Your task to perform on an android device: open app "Gboard" Image 0: 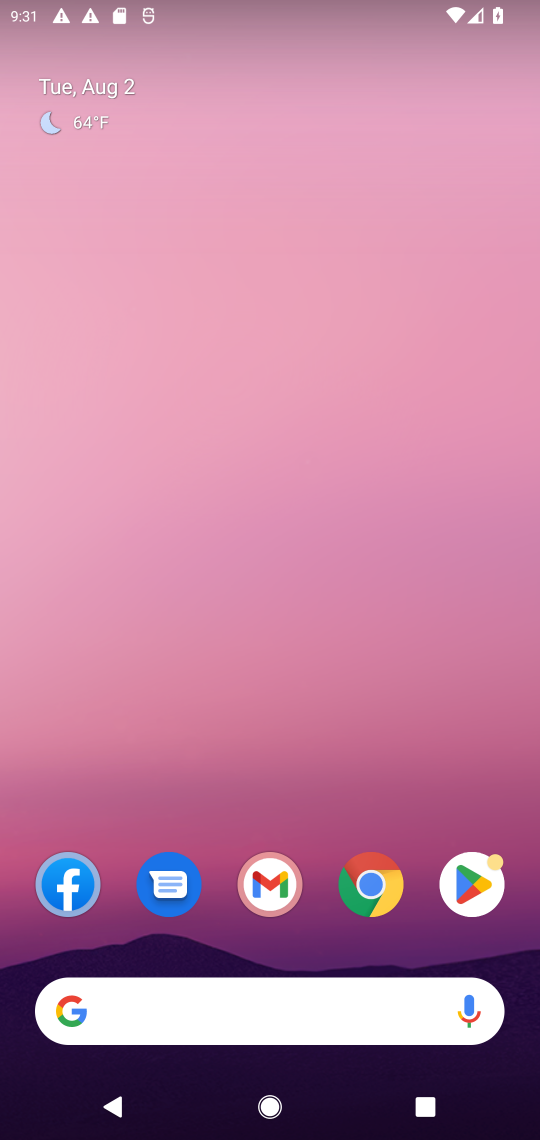
Step 0: click (487, 891)
Your task to perform on an android device: open app "Gboard" Image 1: 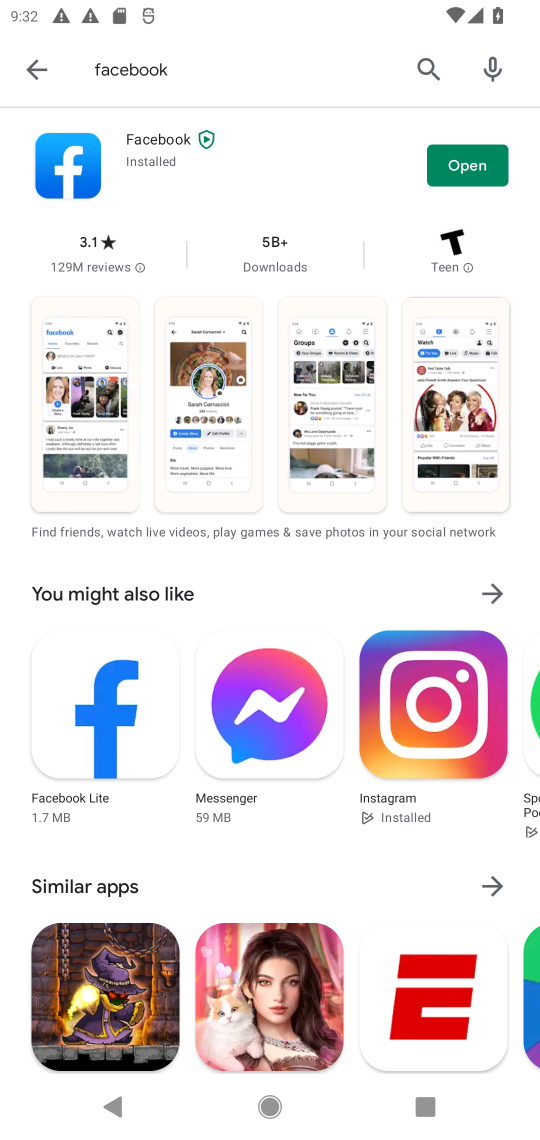
Step 1: click (411, 62)
Your task to perform on an android device: open app "Gboard" Image 2: 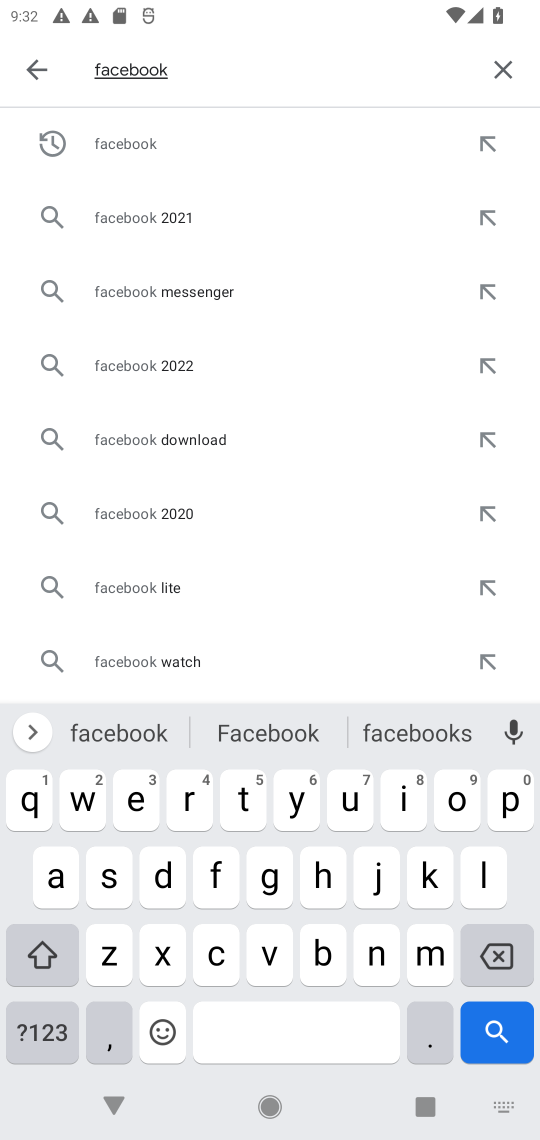
Step 2: click (500, 77)
Your task to perform on an android device: open app "Gboard" Image 3: 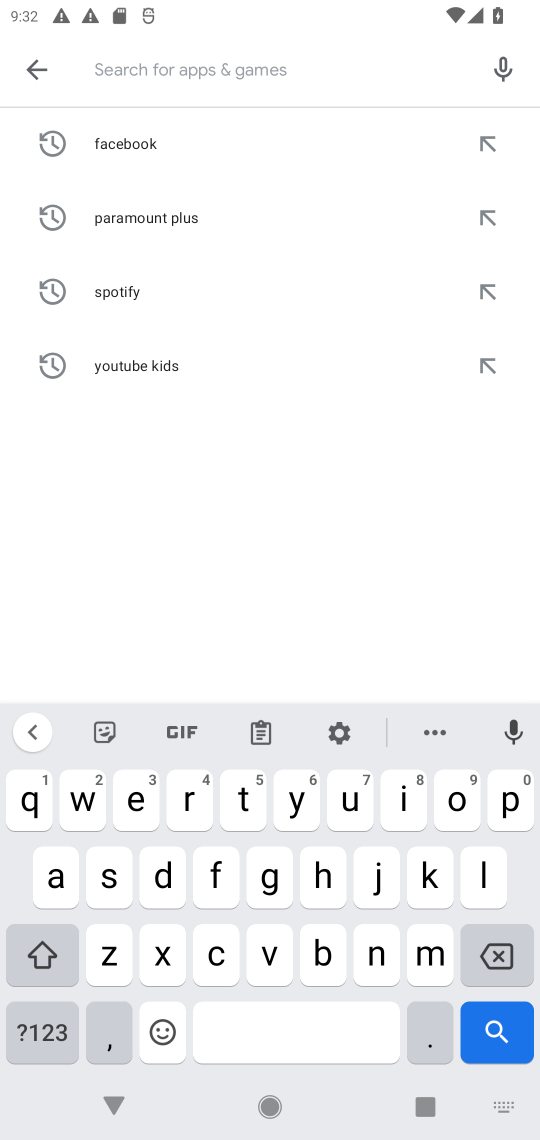
Step 3: click (273, 878)
Your task to perform on an android device: open app "Gboard" Image 4: 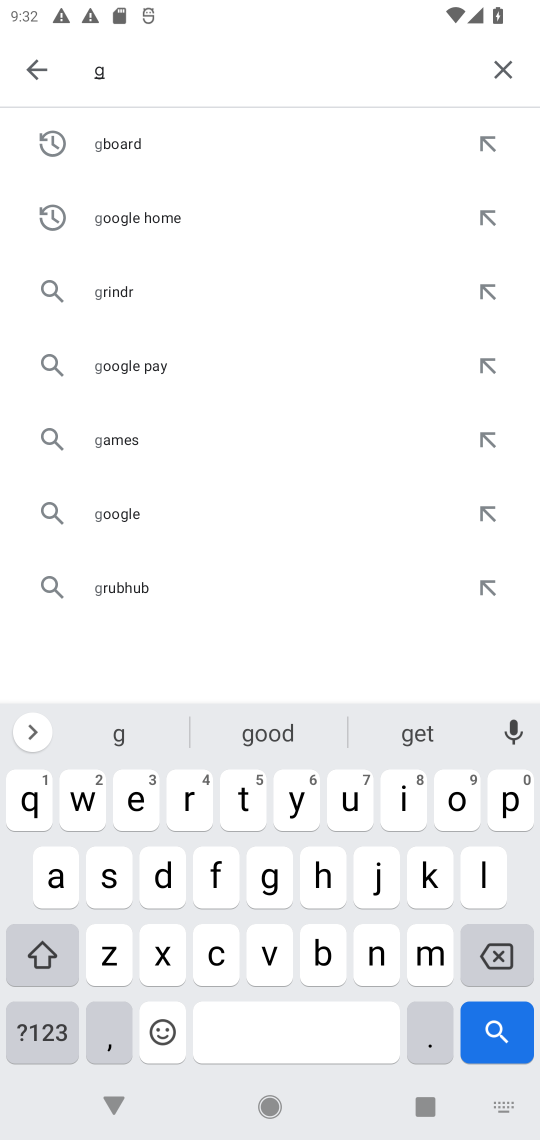
Step 4: click (320, 960)
Your task to perform on an android device: open app "Gboard" Image 5: 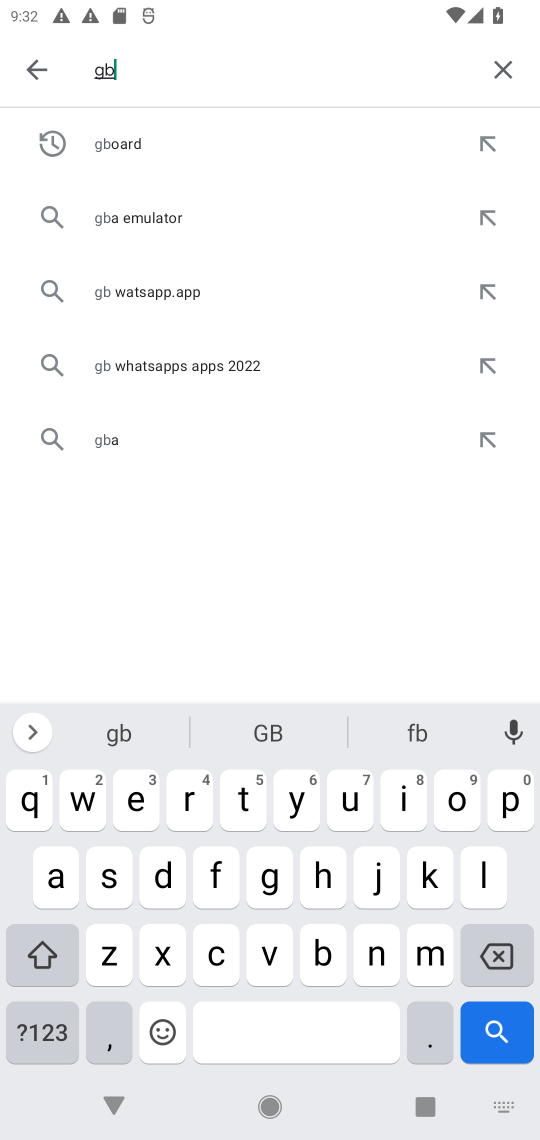
Step 5: click (130, 139)
Your task to perform on an android device: open app "Gboard" Image 6: 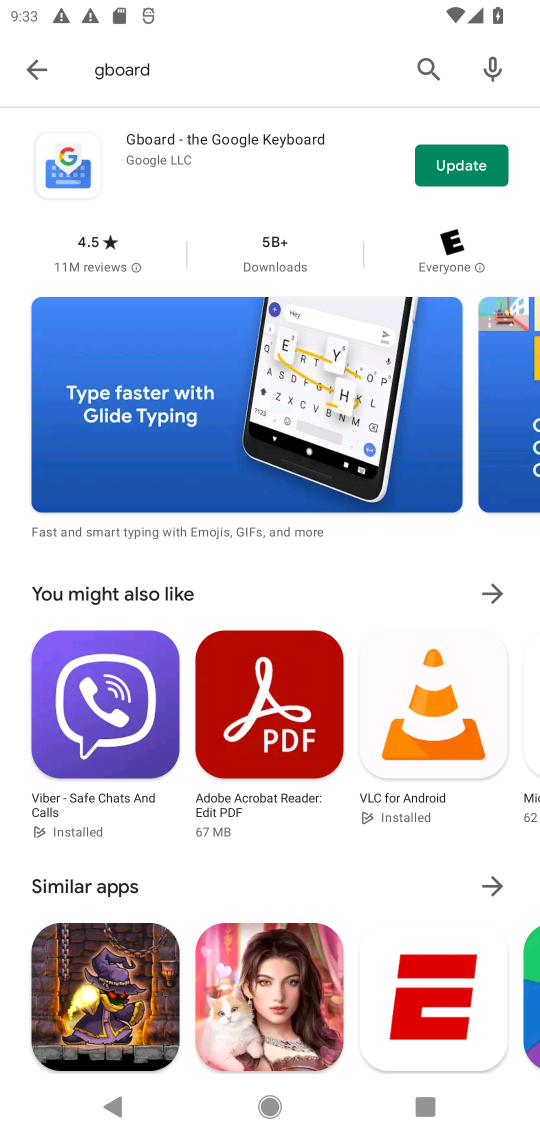
Step 6: task complete